Your task to perform on an android device: allow cookies in the chrome app Image 0: 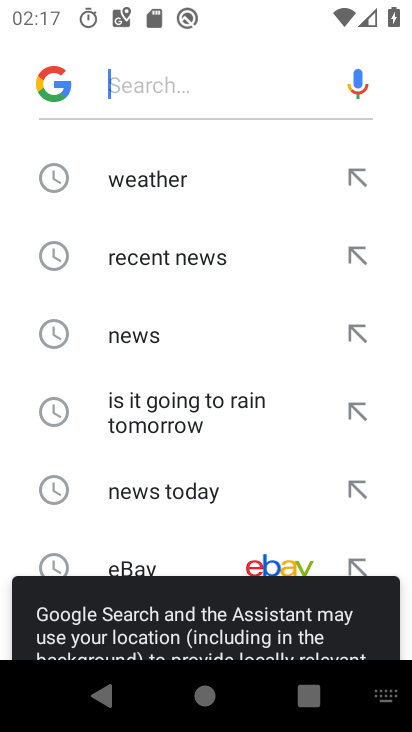
Step 0: drag from (161, 576) to (172, 112)
Your task to perform on an android device: allow cookies in the chrome app Image 1: 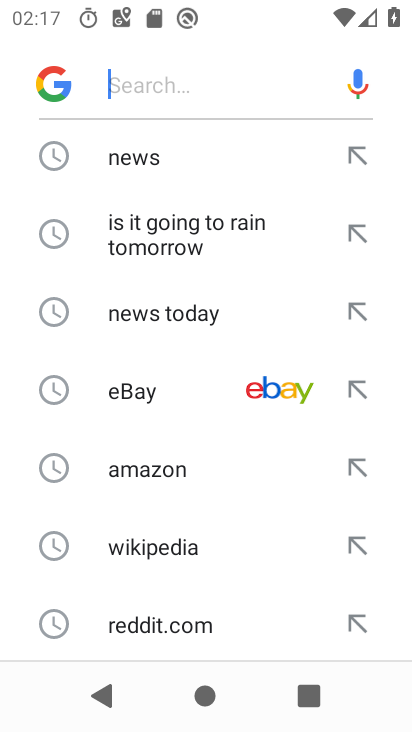
Step 1: drag from (218, 512) to (235, 313)
Your task to perform on an android device: allow cookies in the chrome app Image 2: 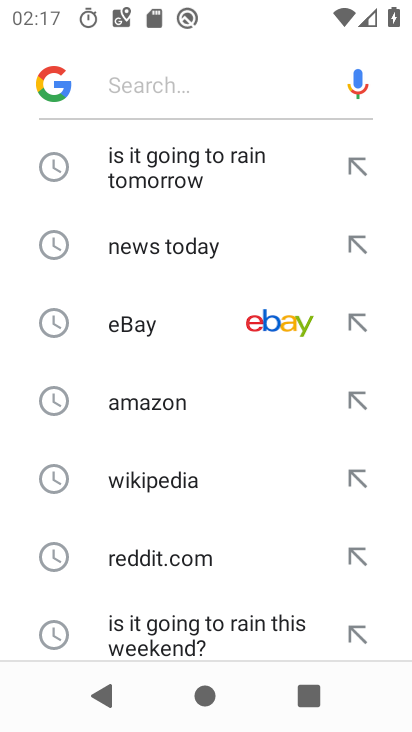
Step 2: drag from (248, 572) to (266, 331)
Your task to perform on an android device: allow cookies in the chrome app Image 3: 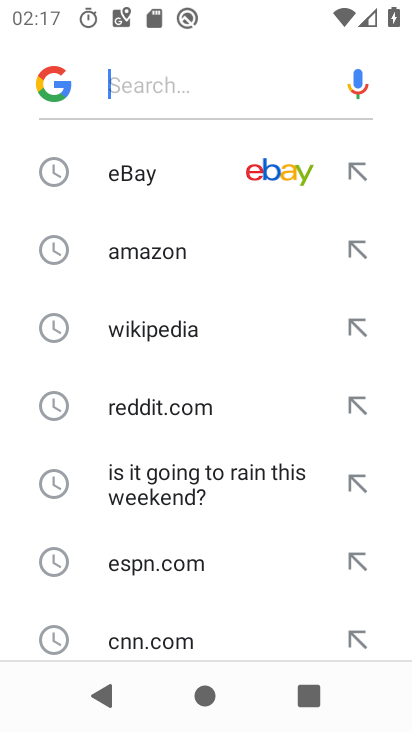
Step 3: drag from (219, 599) to (237, 410)
Your task to perform on an android device: allow cookies in the chrome app Image 4: 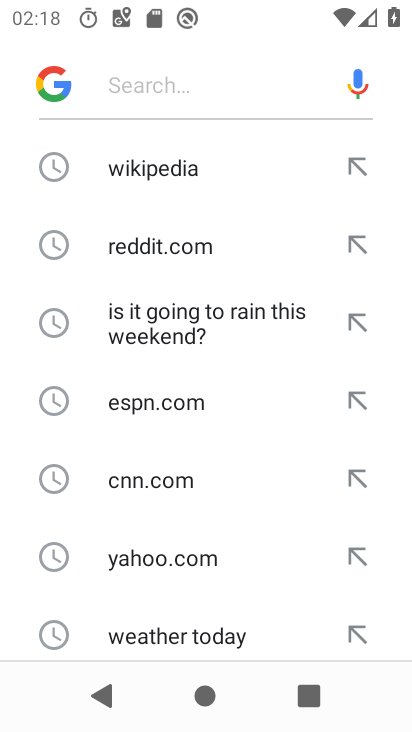
Step 4: press home button
Your task to perform on an android device: allow cookies in the chrome app Image 5: 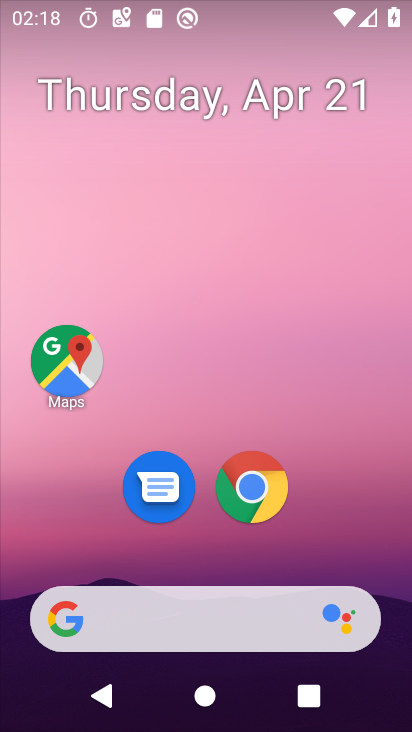
Step 5: click (243, 476)
Your task to perform on an android device: allow cookies in the chrome app Image 6: 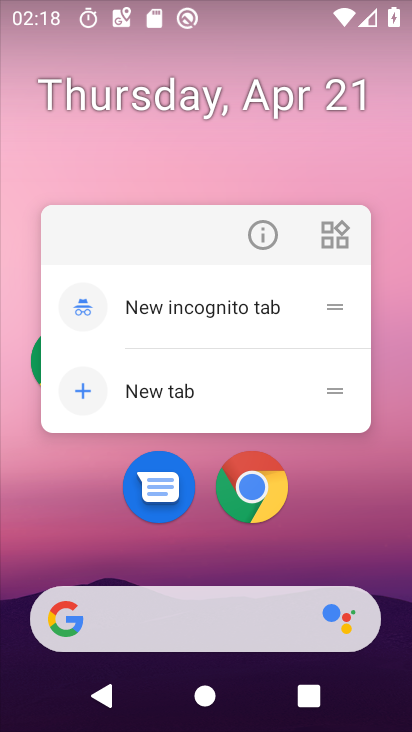
Step 6: click (271, 244)
Your task to perform on an android device: allow cookies in the chrome app Image 7: 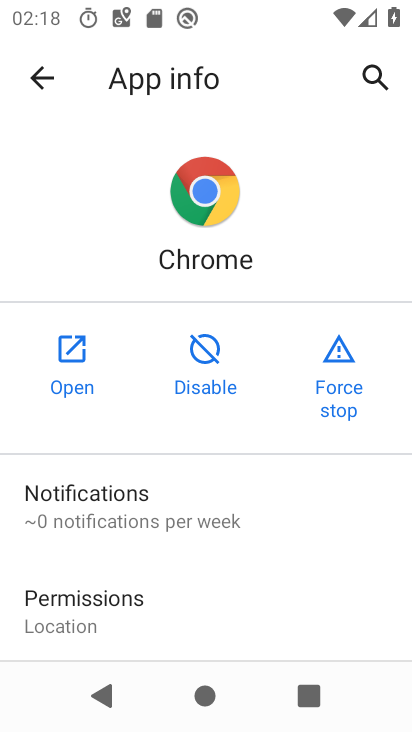
Step 7: click (47, 369)
Your task to perform on an android device: allow cookies in the chrome app Image 8: 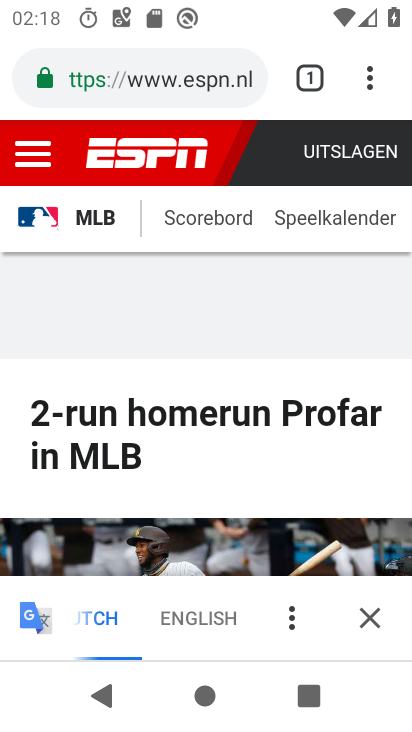
Step 8: drag from (381, 73) to (154, 555)
Your task to perform on an android device: allow cookies in the chrome app Image 9: 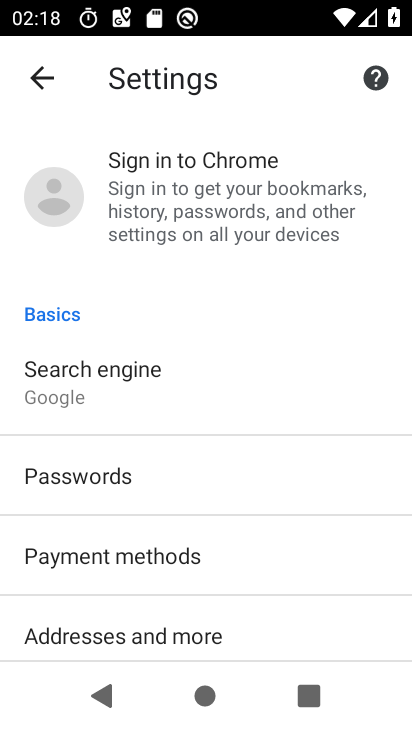
Step 9: drag from (207, 512) to (261, 136)
Your task to perform on an android device: allow cookies in the chrome app Image 10: 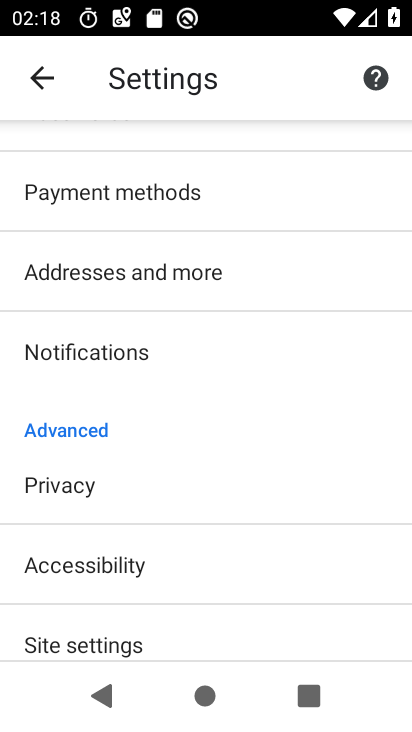
Step 10: drag from (194, 593) to (260, 231)
Your task to perform on an android device: allow cookies in the chrome app Image 11: 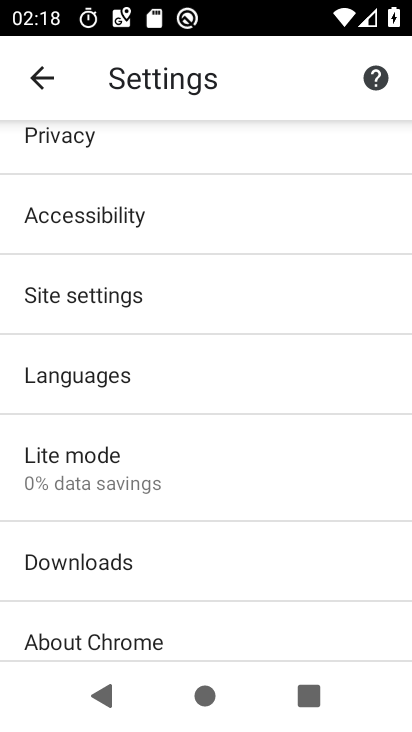
Step 11: click (119, 303)
Your task to perform on an android device: allow cookies in the chrome app Image 12: 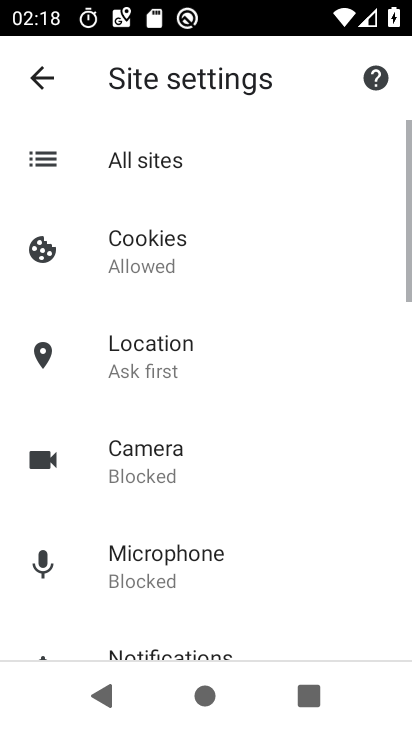
Step 12: click (224, 269)
Your task to perform on an android device: allow cookies in the chrome app Image 13: 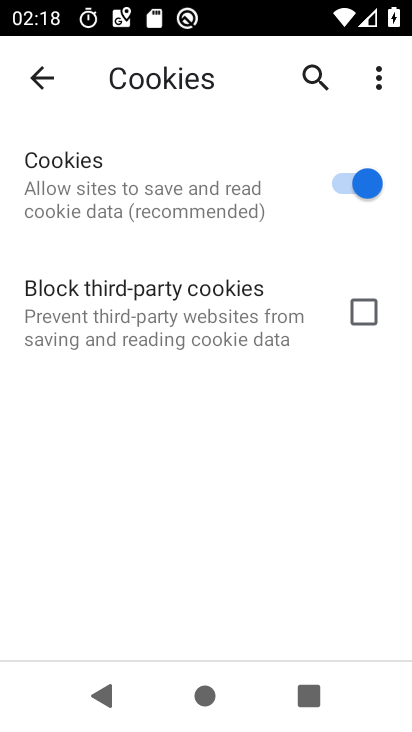
Step 13: task complete